Your task to perform on an android device: What's the weather? Image 0: 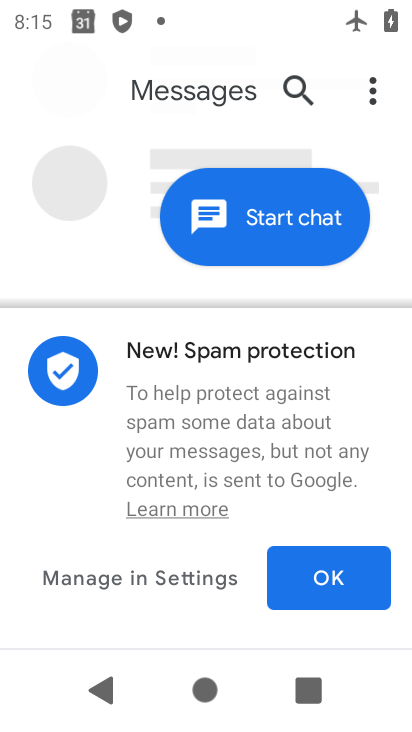
Step 0: press home button
Your task to perform on an android device: What's the weather? Image 1: 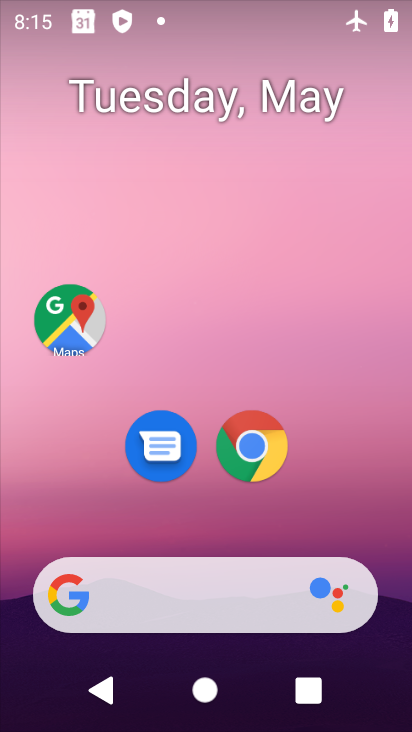
Step 1: click (113, 593)
Your task to perform on an android device: What's the weather? Image 2: 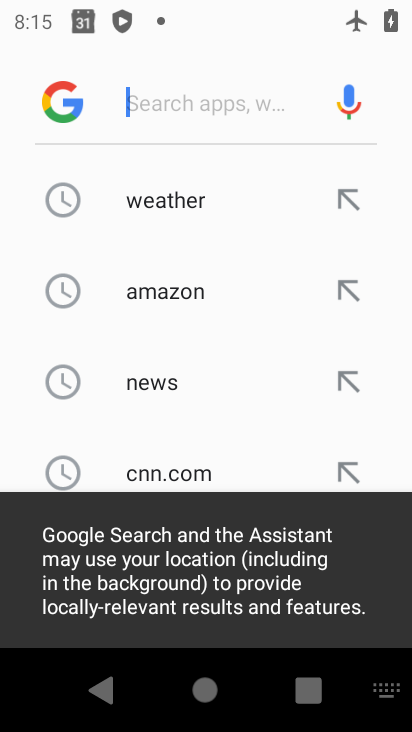
Step 2: click (144, 204)
Your task to perform on an android device: What's the weather? Image 3: 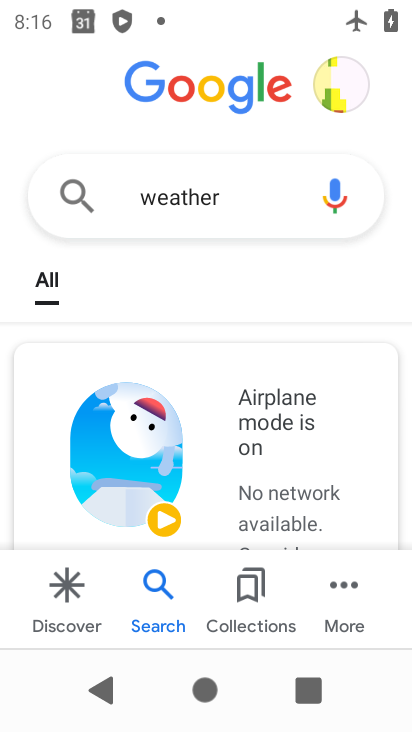
Step 3: task complete